Your task to perform on an android device: add a label to a message in the gmail app Image 0: 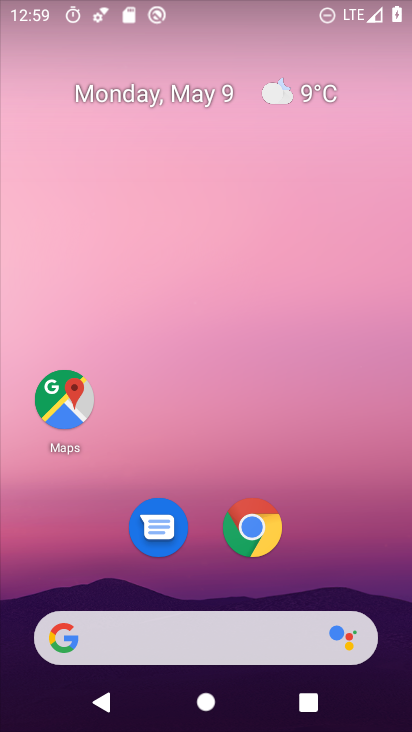
Step 0: drag from (186, 529) to (283, 82)
Your task to perform on an android device: add a label to a message in the gmail app Image 1: 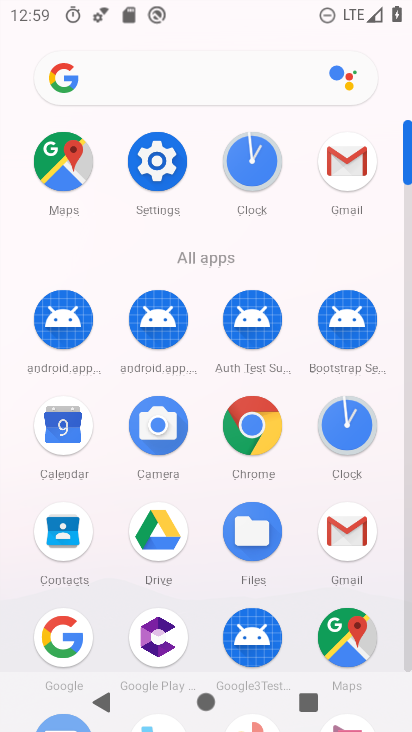
Step 1: click (338, 158)
Your task to perform on an android device: add a label to a message in the gmail app Image 2: 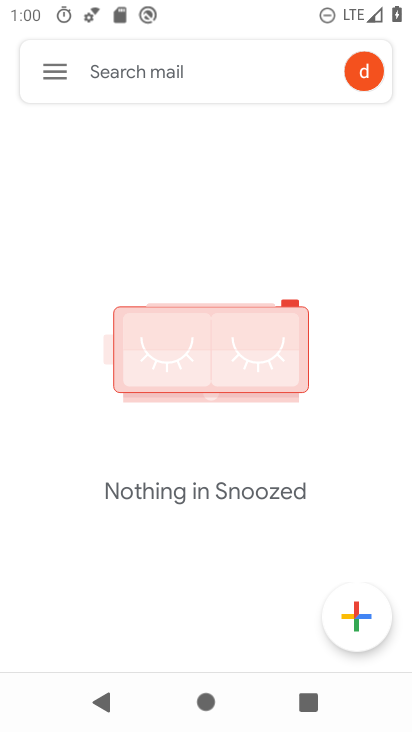
Step 2: click (56, 64)
Your task to perform on an android device: add a label to a message in the gmail app Image 3: 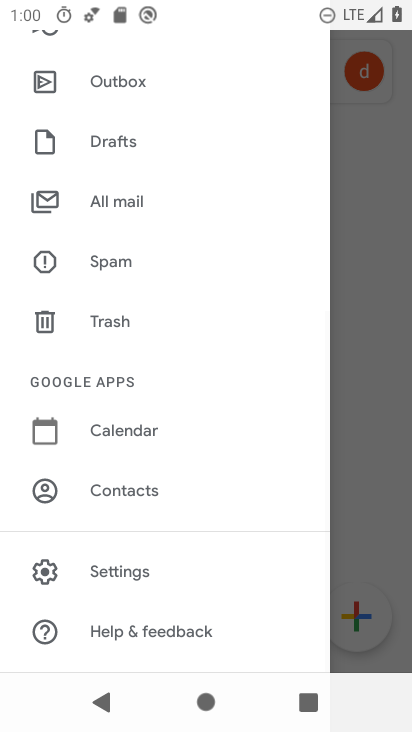
Step 3: click (144, 197)
Your task to perform on an android device: add a label to a message in the gmail app Image 4: 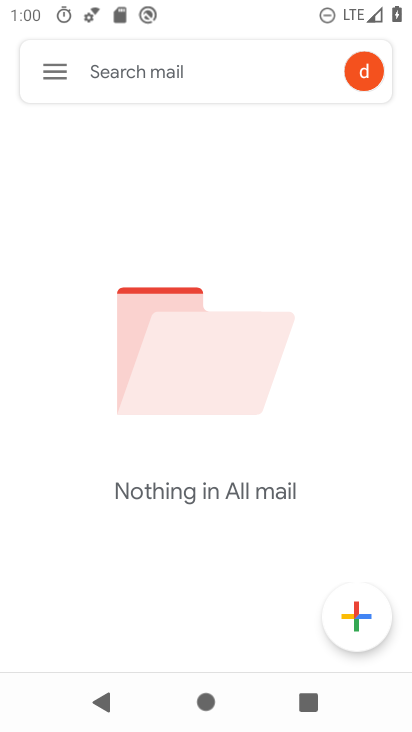
Step 4: task complete